Your task to perform on an android device: show emergency info Image 0: 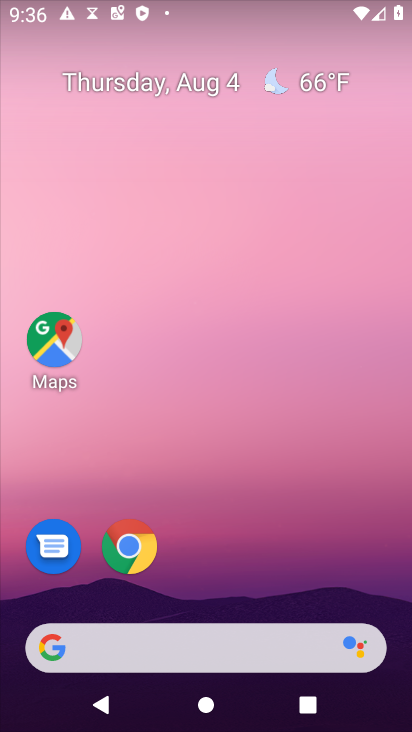
Step 0: drag from (212, 608) to (291, 82)
Your task to perform on an android device: show emergency info Image 1: 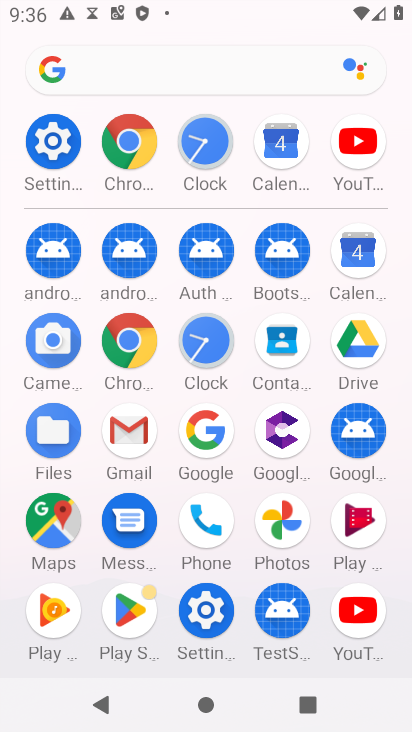
Step 1: click (42, 138)
Your task to perform on an android device: show emergency info Image 2: 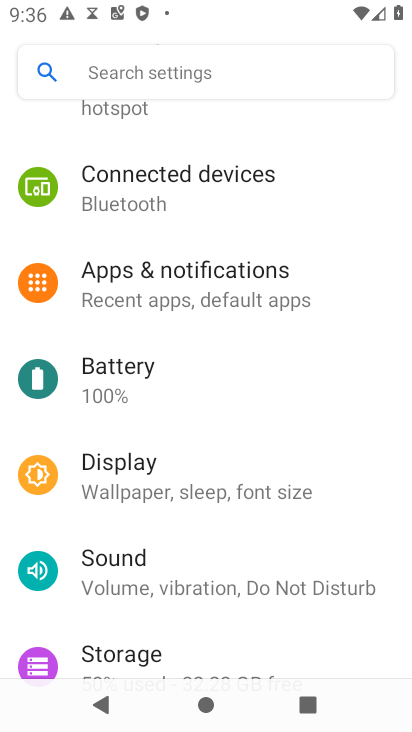
Step 2: drag from (187, 643) to (185, 138)
Your task to perform on an android device: show emergency info Image 3: 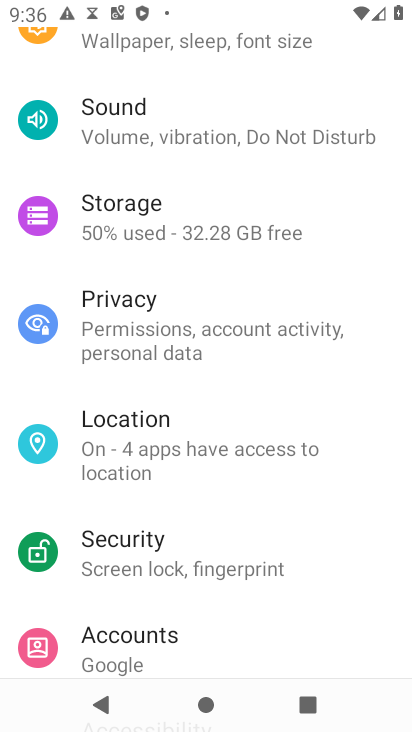
Step 3: drag from (309, 586) to (339, 2)
Your task to perform on an android device: show emergency info Image 4: 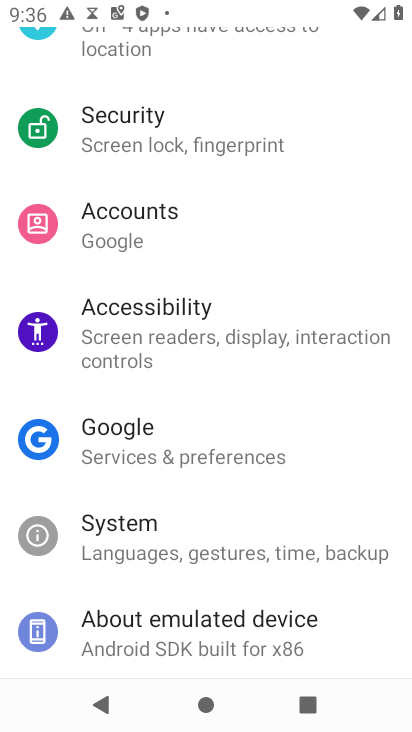
Step 4: click (183, 638)
Your task to perform on an android device: show emergency info Image 5: 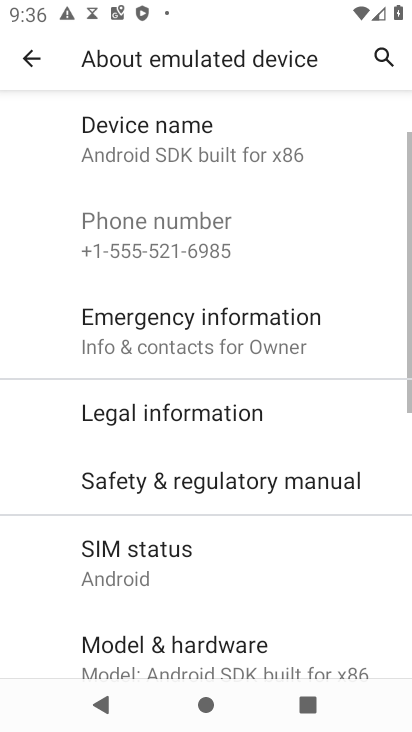
Step 5: click (189, 340)
Your task to perform on an android device: show emergency info Image 6: 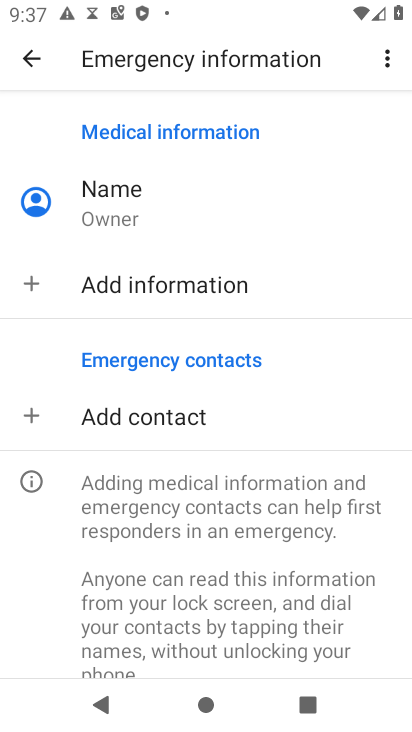
Step 6: task complete